Your task to perform on an android device: Clear the shopping cart on ebay.com. Add "panasonic triple a" to the cart on ebay.com, then select checkout. Image 0: 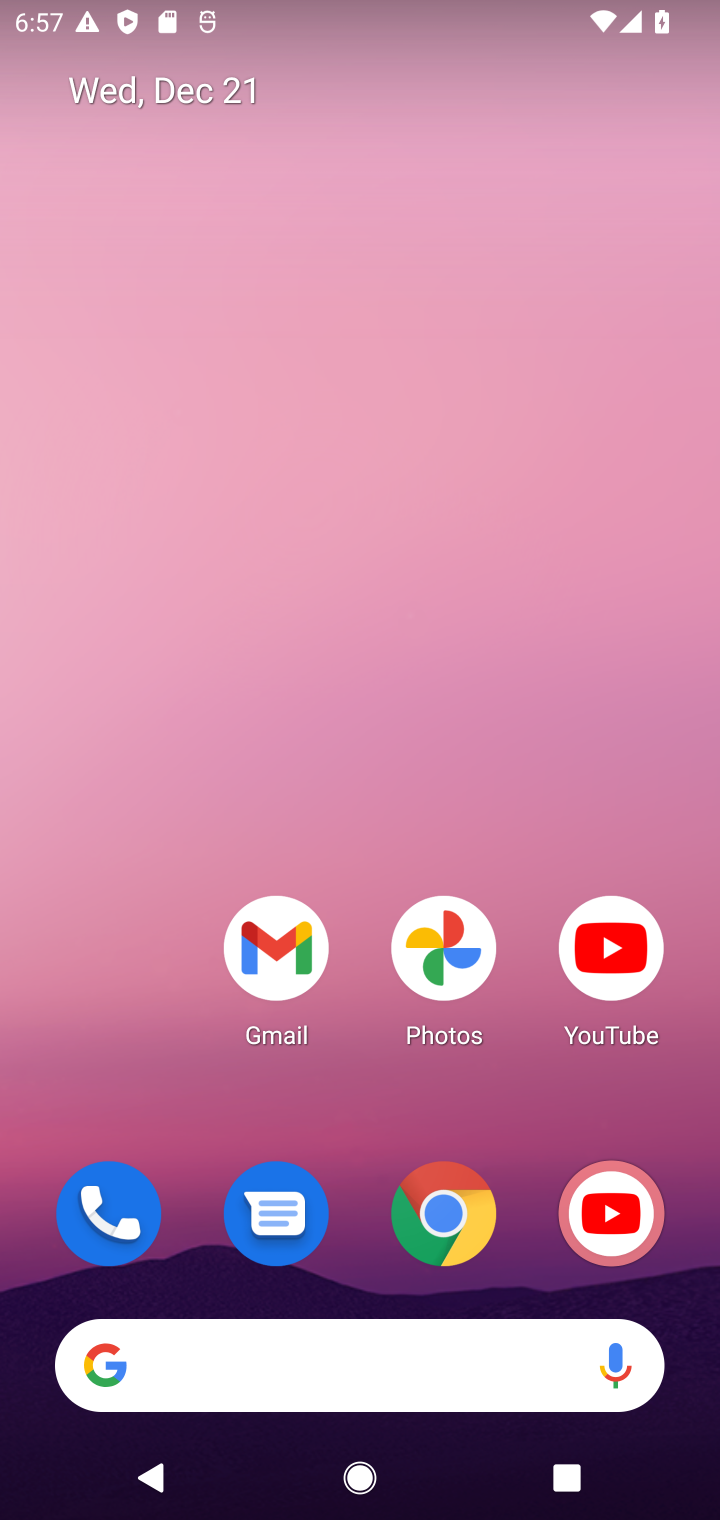
Step 0: click (430, 1161)
Your task to perform on an android device: Clear the shopping cart on ebay.com. Add "panasonic triple a" to the cart on ebay.com, then select checkout. Image 1: 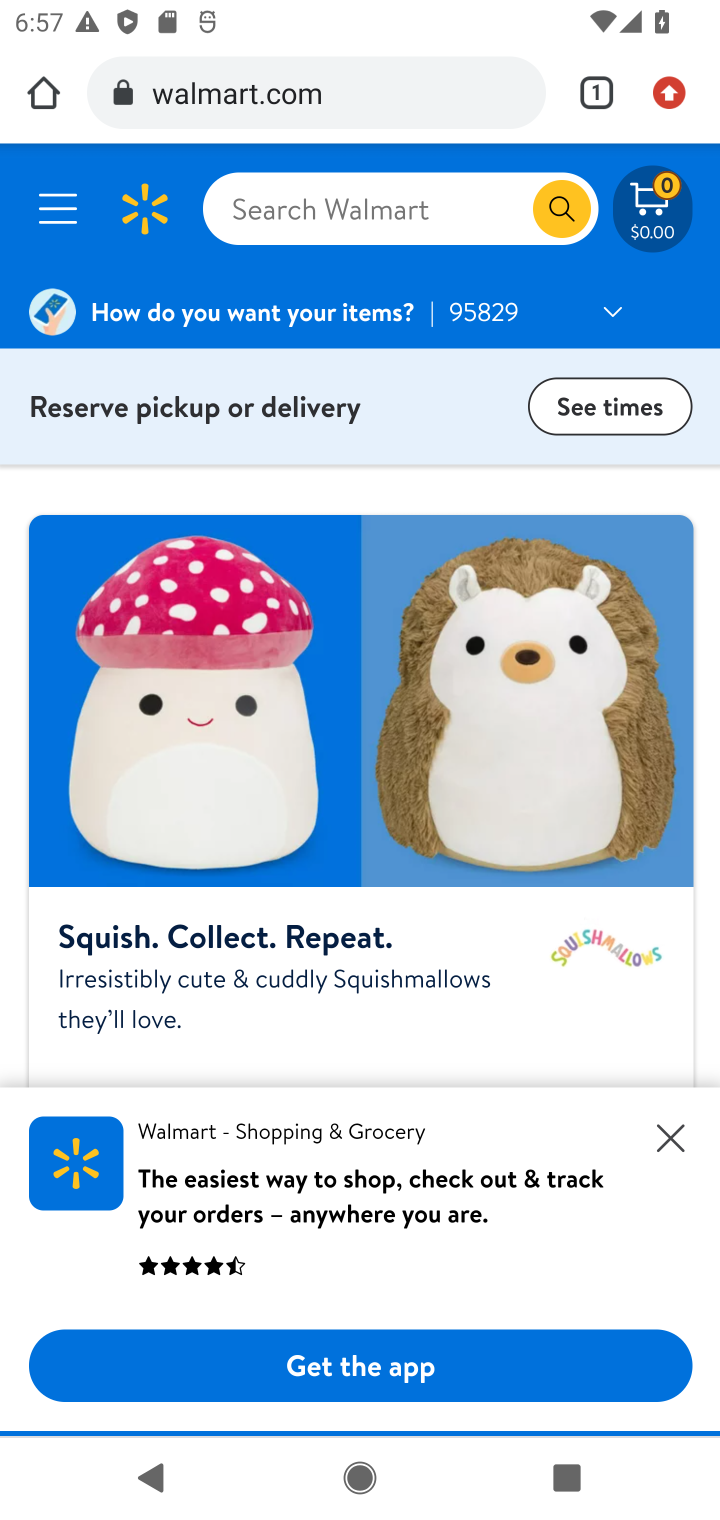
Step 1: click (652, 1141)
Your task to perform on an android device: Clear the shopping cart on ebay.com. Add "panasonic triple a" to the cart on ebay.com, then select checkout. Image 2: 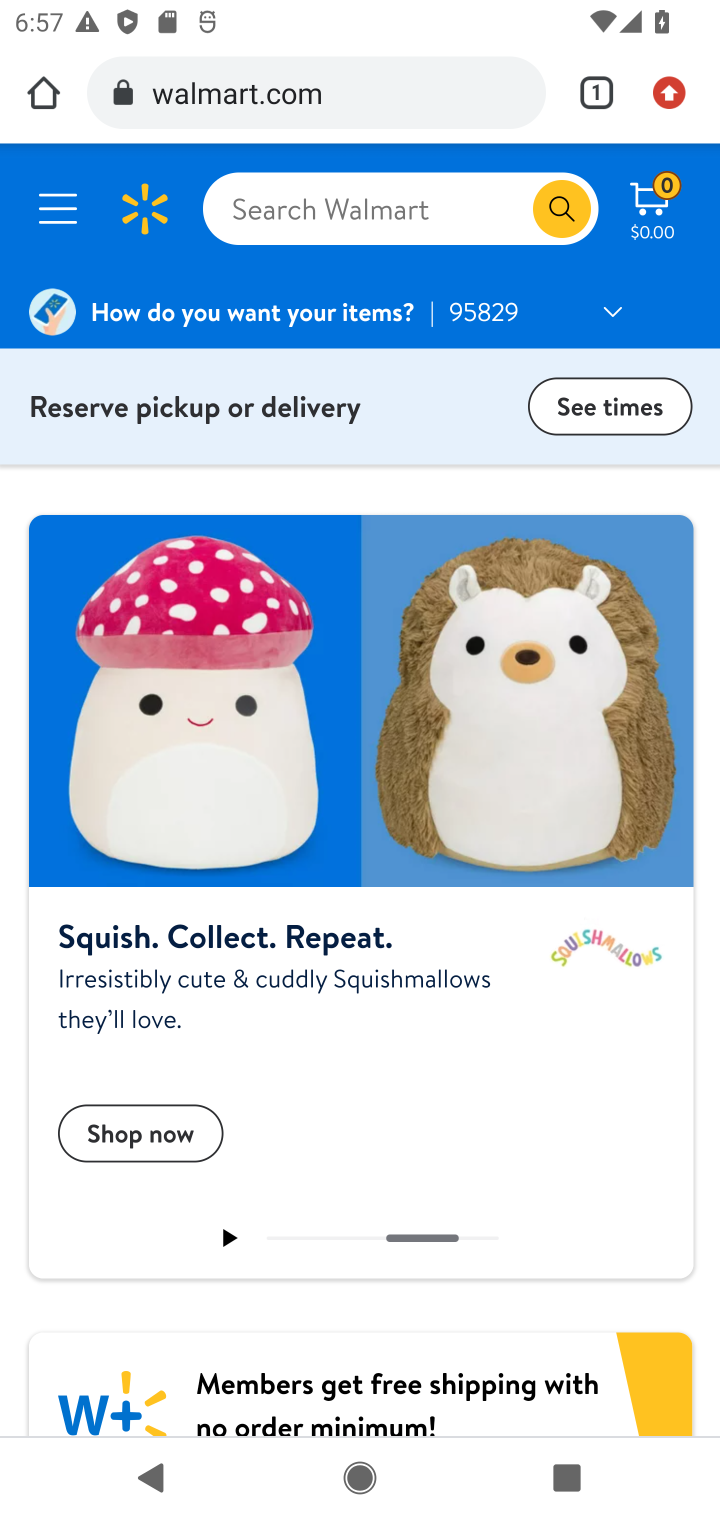
Step 2: click (252, 92)
Your task to perform on an android device: Clear the shopping cart on ebay.com. Add "panasonic triple a" to the cart on ebay.com, then select checkout. Image 3: 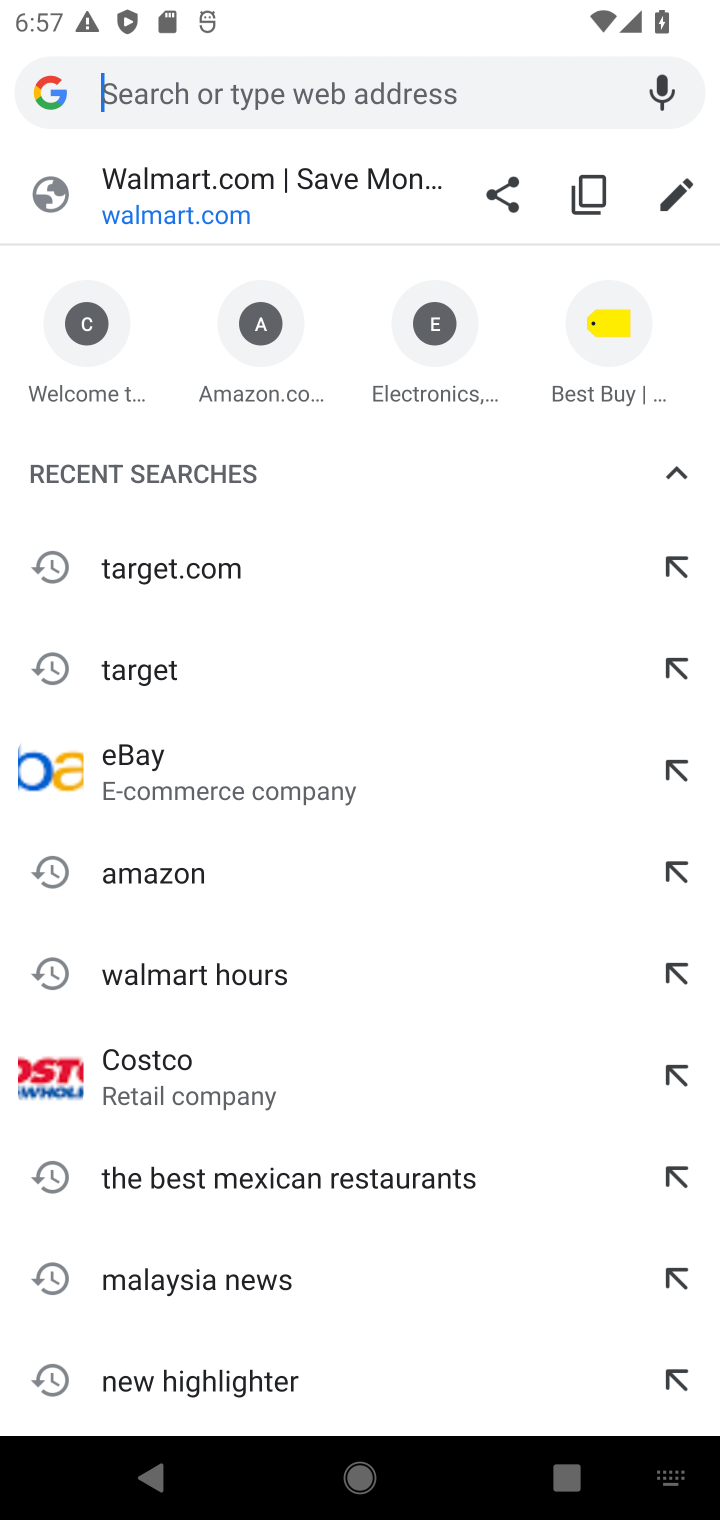
Step 3: type "ebay.com"
Your task to perform on an android device: Clear the shopping cart on ebay.com. Add "panasonic triple a" to the cart on ebay.com, then select checkout. Image 4: 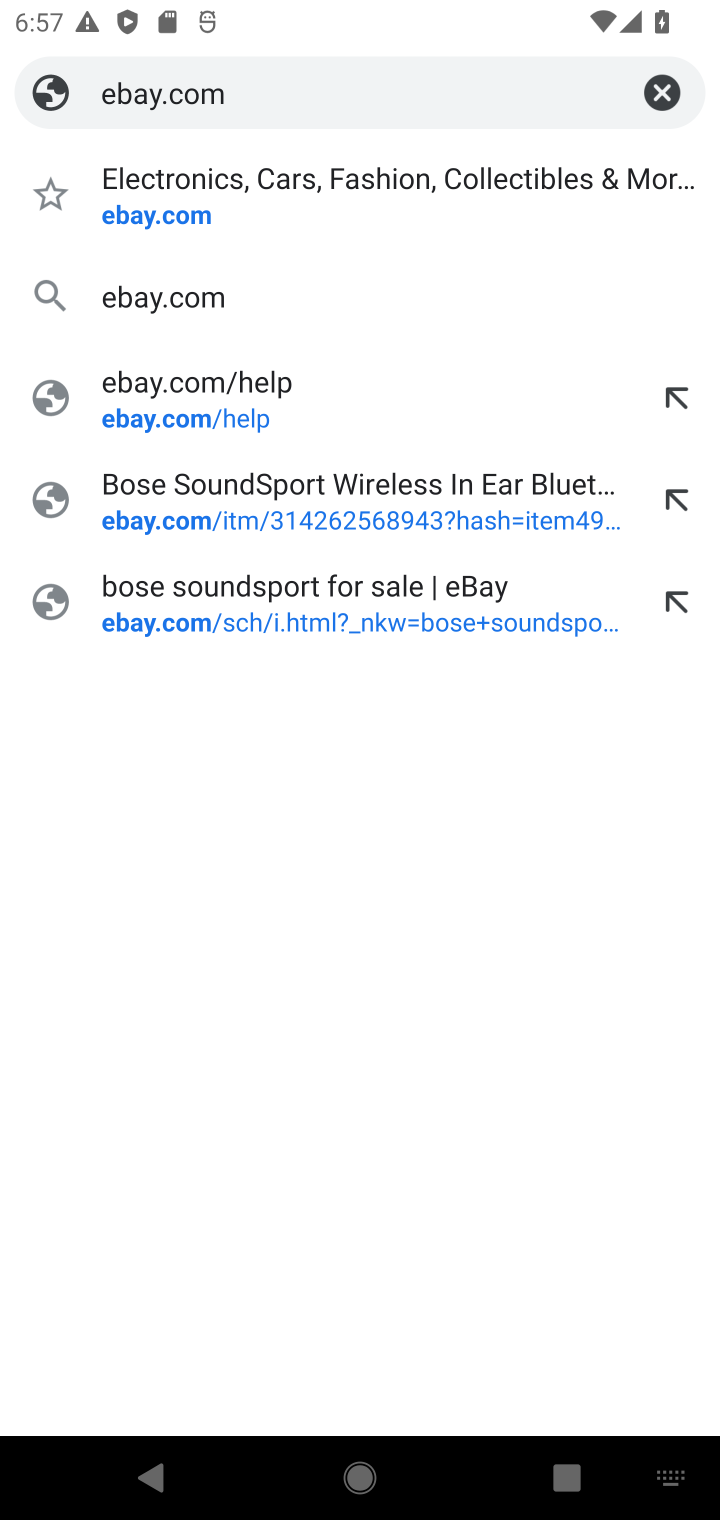
Step 4: click (225, 180)
Your task to perform on an android device: Clear the shopping cart on ebay.com. Add "panasonic triple a" to the cart on ebay.com, then select checkout. Image 5: 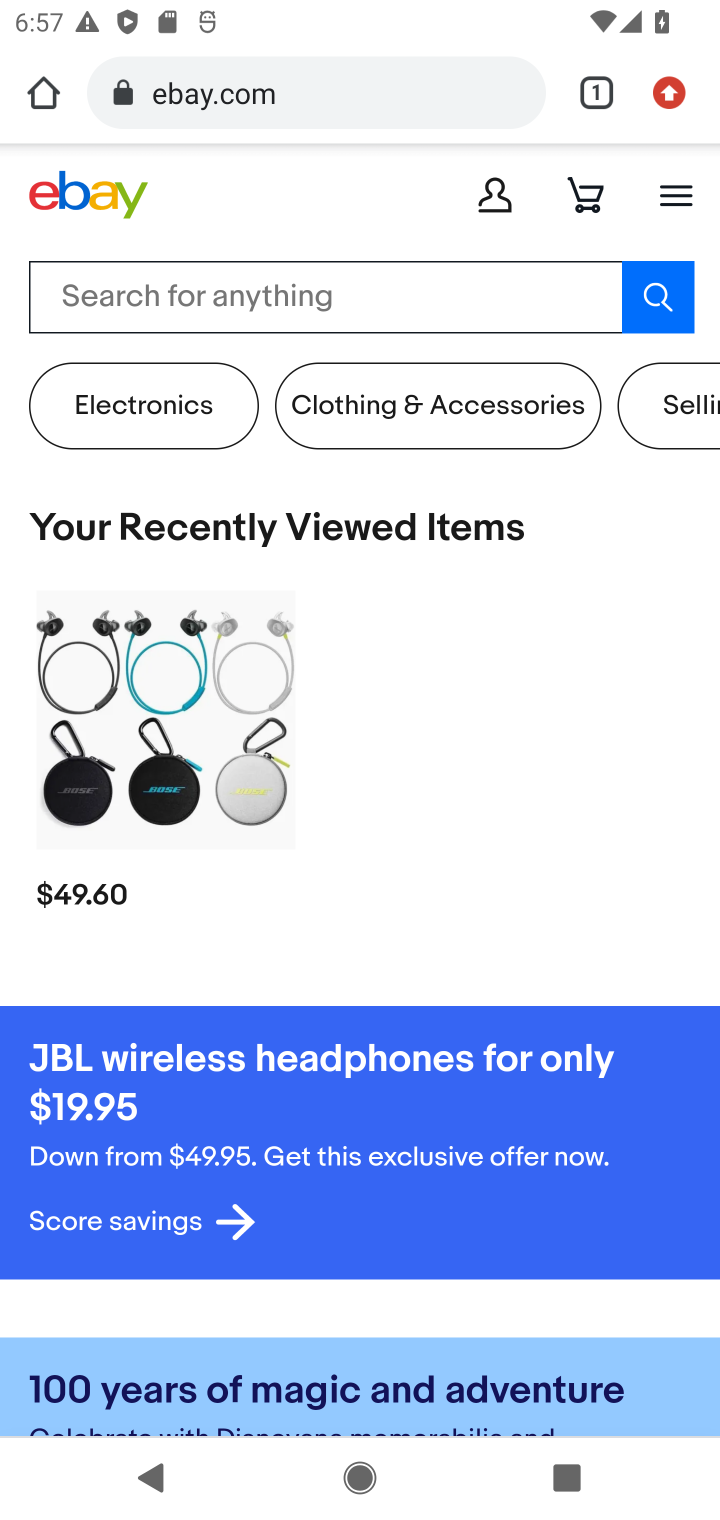
Step 5: click (212, 281)
Your task to perform on an android device: Clear the shopping cart on ebay.com. Add "panasonic triple a" to the cart on ebay.com, then select checkout. Image 6: 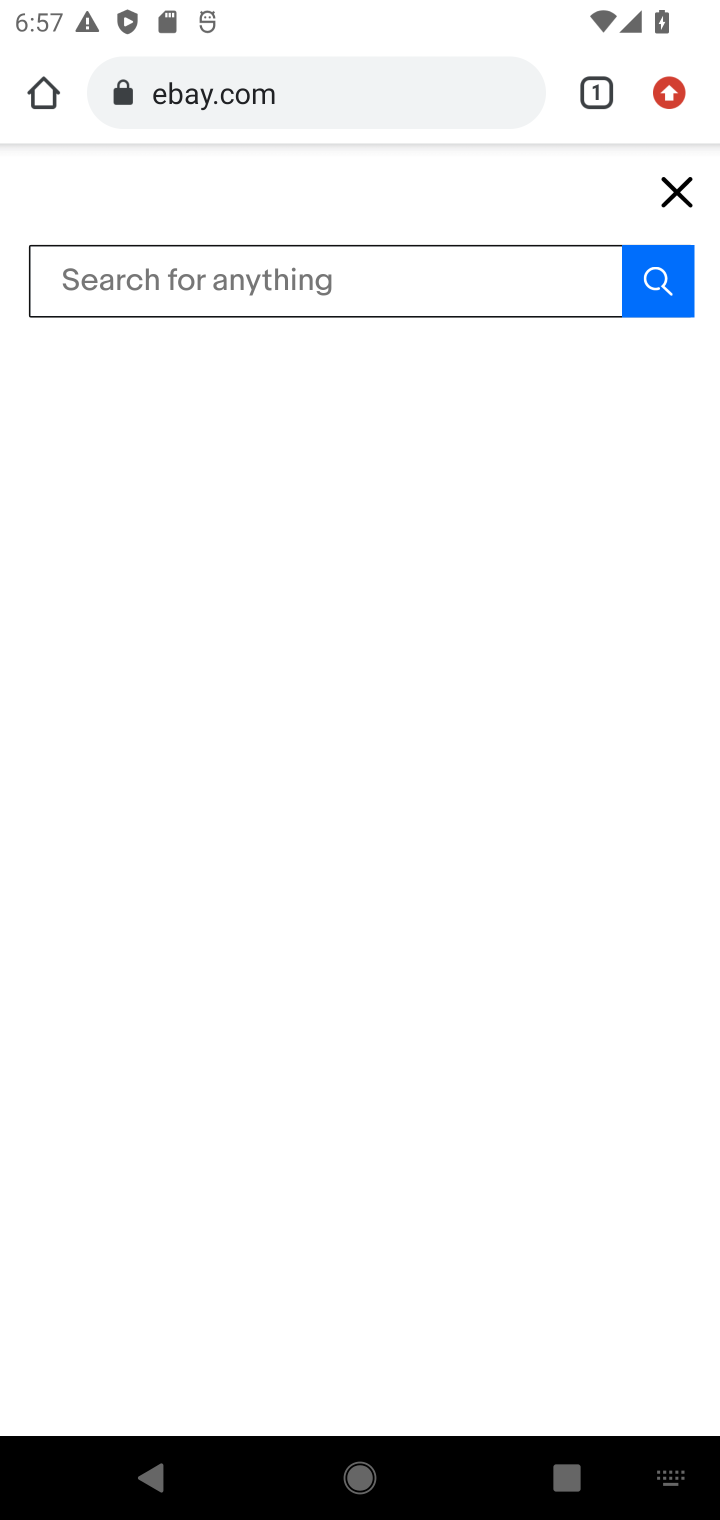
Step 6: type "panasonic triple a"
Your task to perform on an android device: Clear the shopping cart on ebay.com. Add "panasonic triple a" to the cart on ebay.com, then select checkout. Image 7: 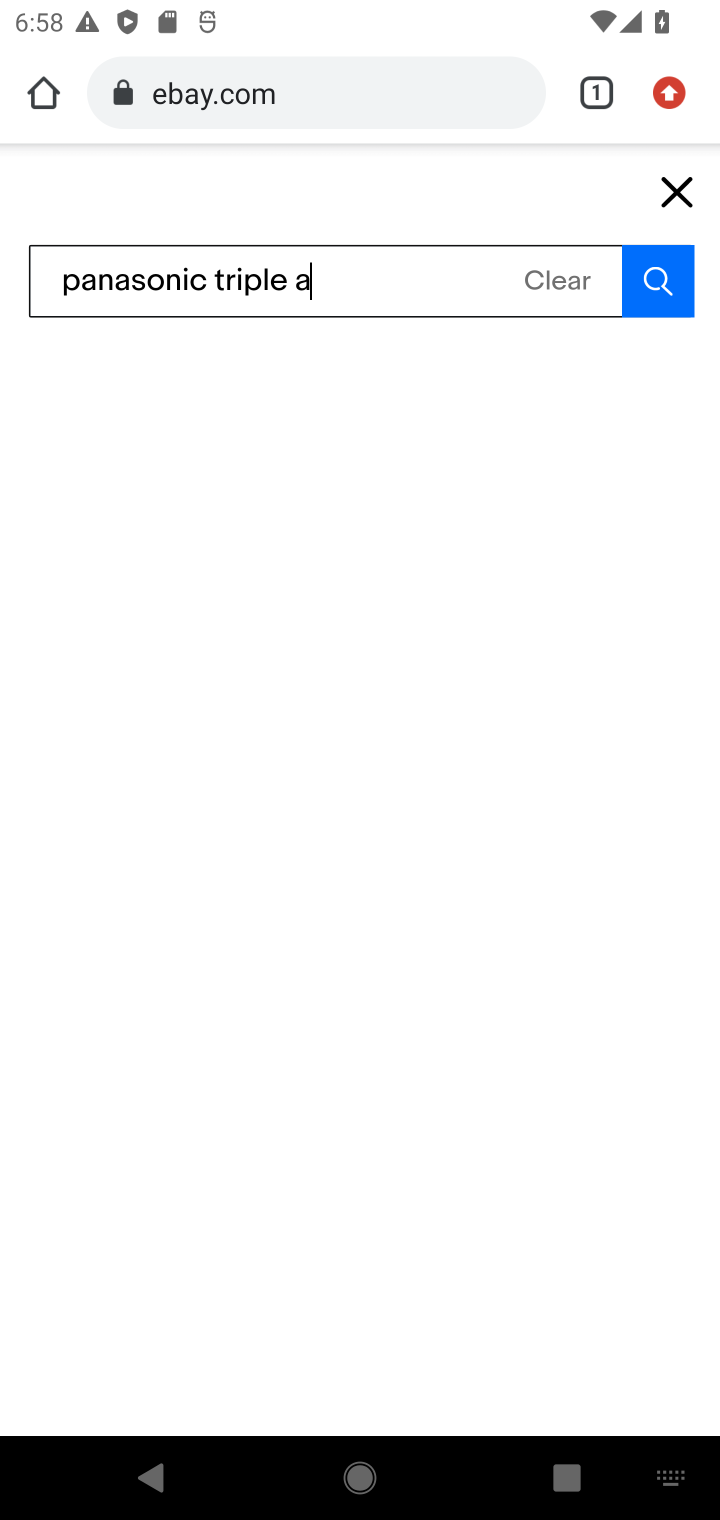
Step 7: click (634, 287)
Your task to perform on an android device: Clear the shopping cart on ebay.com. Add "panasonic triple a" to the cart on ebay.com, then select checkout. Image 8: 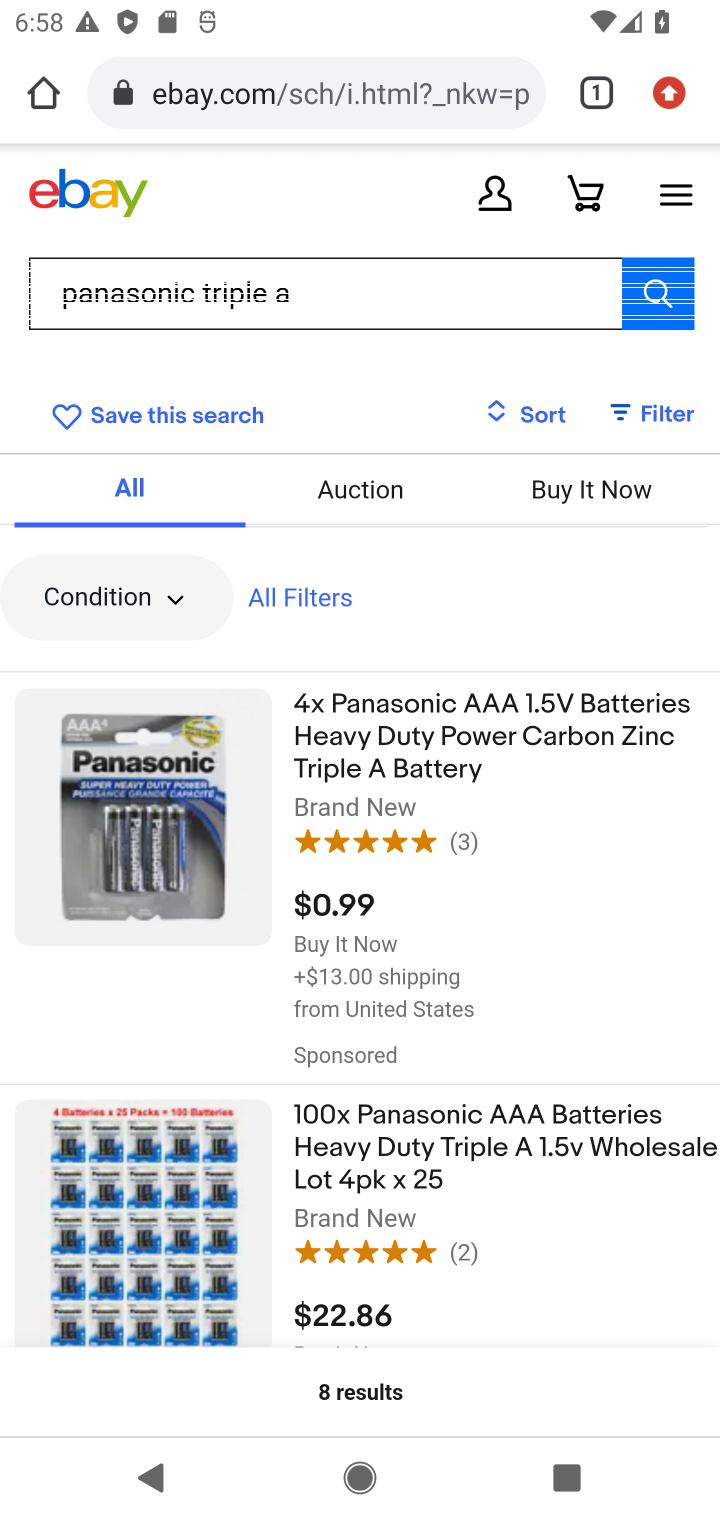
Step 8: click (338, 788)
Your task to perform on an android device: Clear the shopping cart on ebay.com. Add "panasonic triple a" to the cart on ebay.com, then select checkout. Image 9: 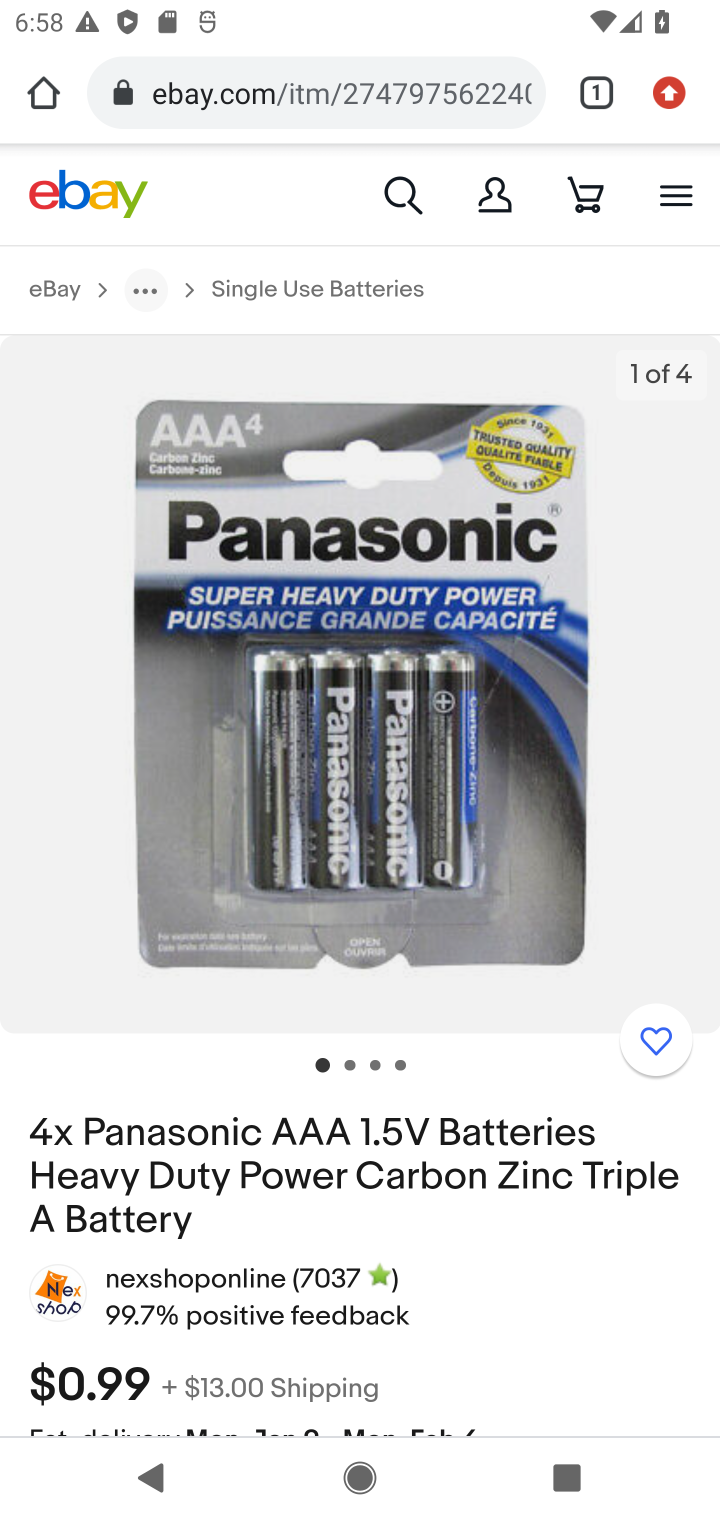
Step 9: drag from (305, 1288) to (327, 537)
Your task to perform on an android device: Clear the shopping cart on ebay.com. Add "panasonic triple a" to the cart on ebay.com, then select checkout. Image 10: 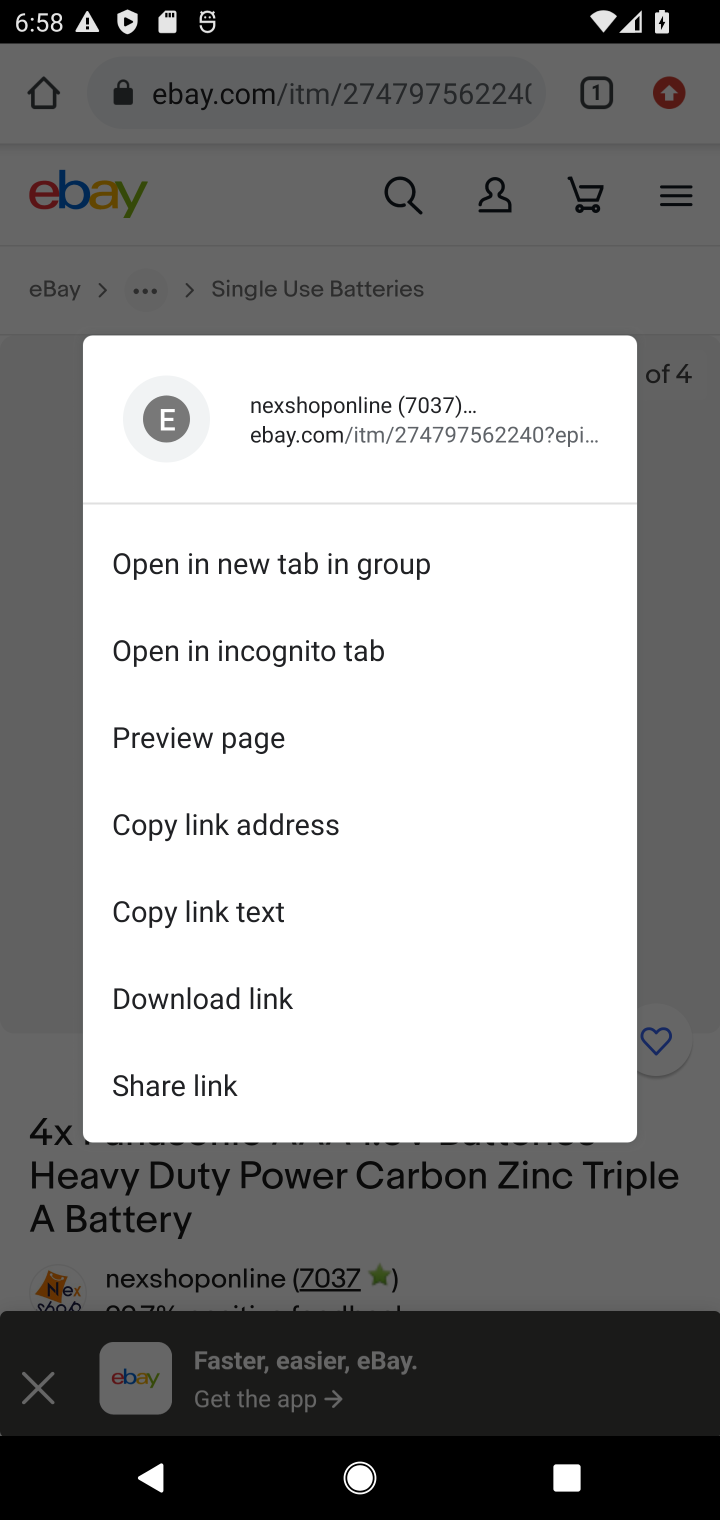
Step 10: click (7, 988)
Your task to perform on an android device: Clear the shopping cart on ebay.com. Add "panasonic triple a" to the cart on ebay.com, then select checkout. Image 11: 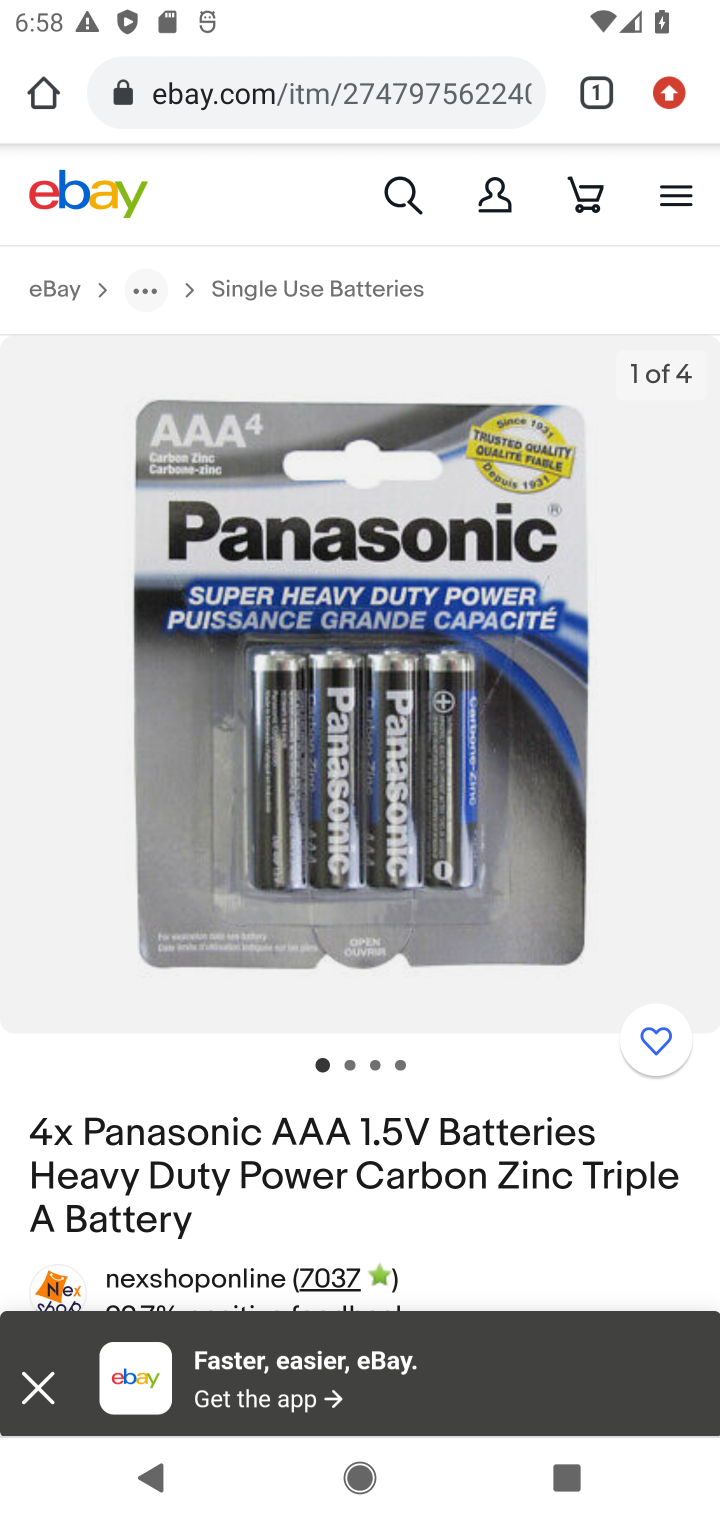
Step 11: click (84, 1063)
Your task to perform on an android device: Clear the shopping cart on ebay.com. Add "panasonic triple a" to the cart on ebay.com, then select checkout. Image 12: 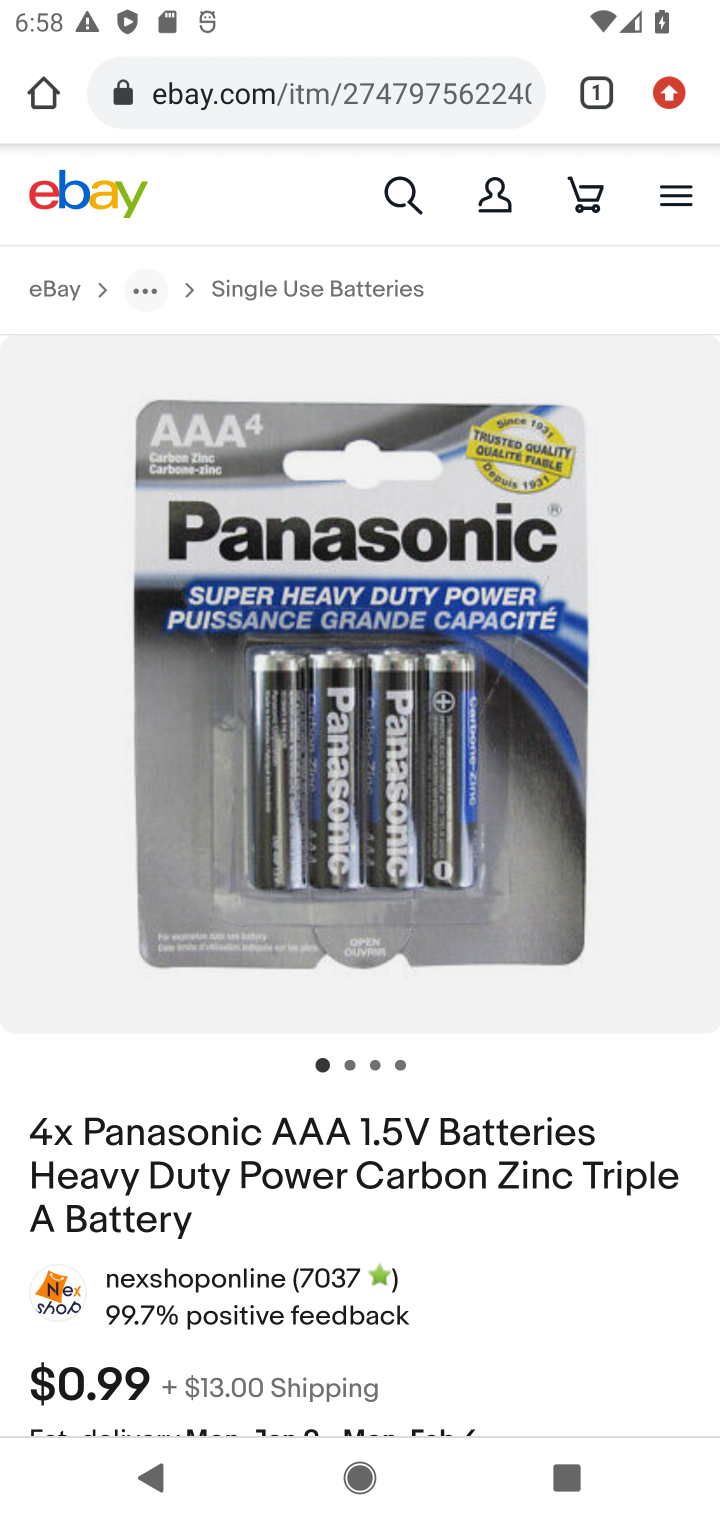
Step 12: task complete